Your task to perform on an android device: Open settings Image 0: 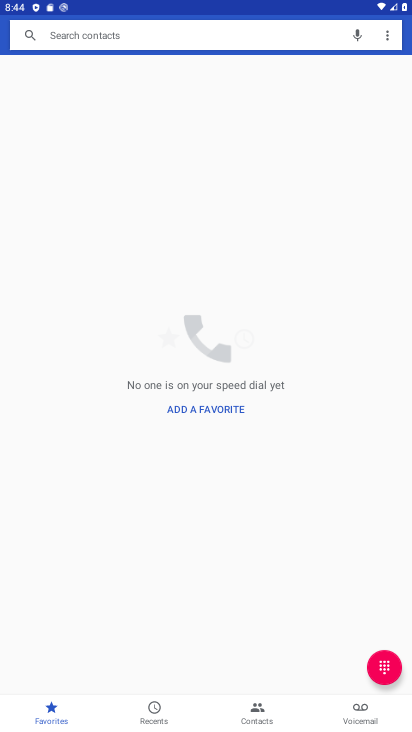
Step 0: press home button
Your task to perform on an android device: Open settings Image 1: 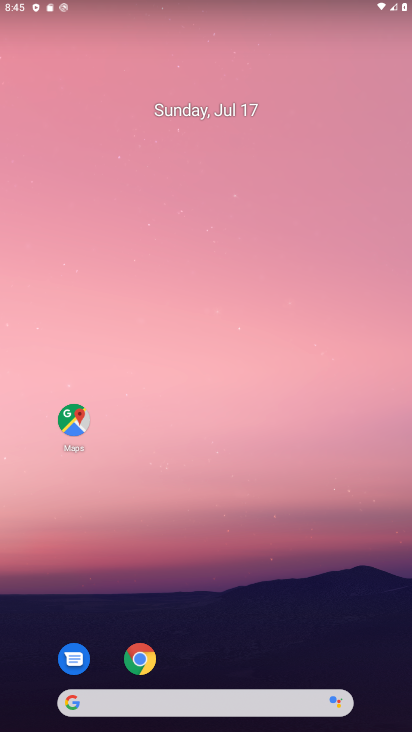
Step 1: drag from (196, 701) to (305, 174)
Your task to perform on an android device: Open settings Image 2: 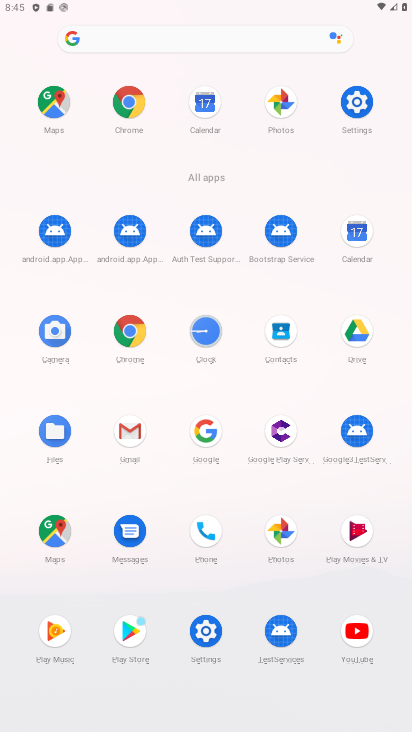
Step 2: click (357, 102)
Your task to perform on an android device: Open settings Image 3: 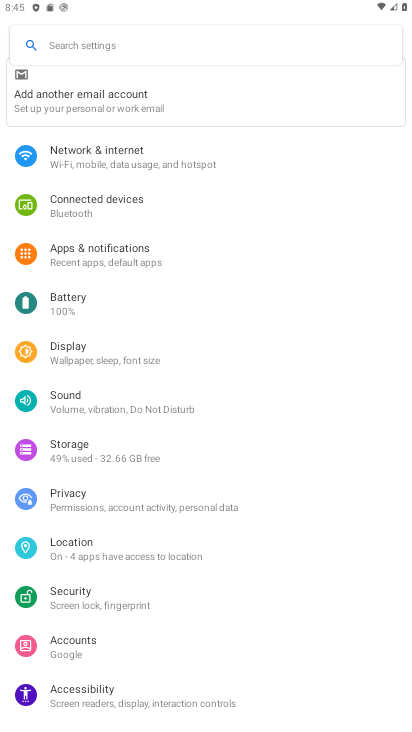
Step 3: task complete